Your task to perform on an android device: Search for Mexican restaurants on Maps Image 0: 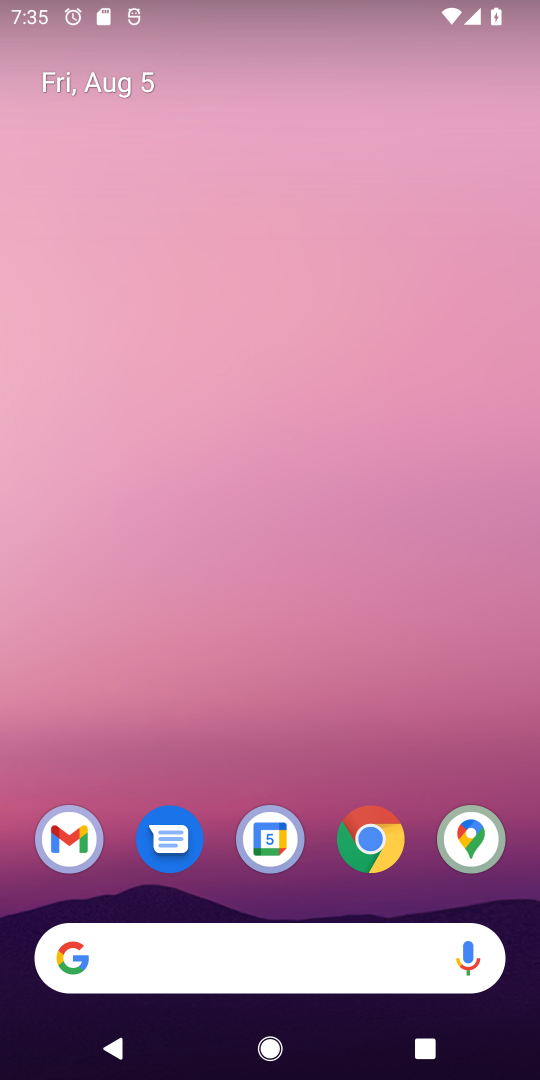
Step 0: press home button
Your task to perform on an android device: Search for Mexican restaurants on Maps Image 1: 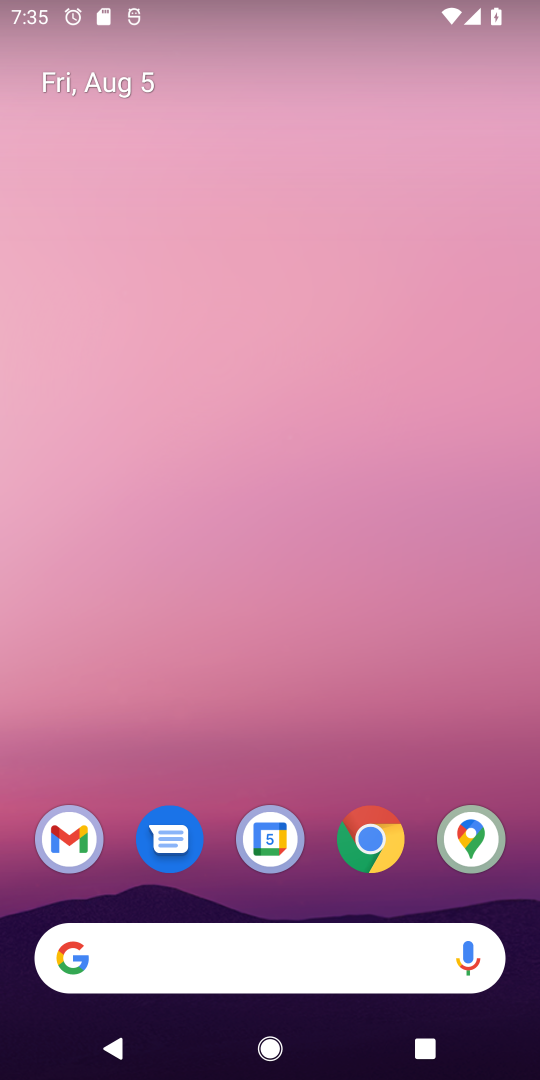
Step 1: click (475, 823)
Your task to perform on an android device: Search for Mexican restaurants on Maps Image 2: 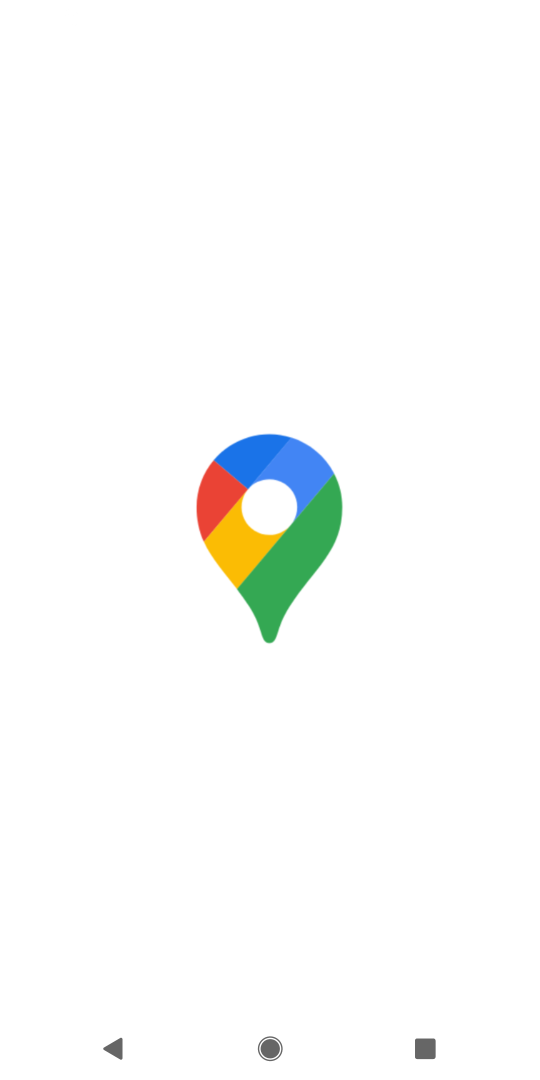
Step 2: task complete